Your task to perform on an android device: toggle location history Image 0: 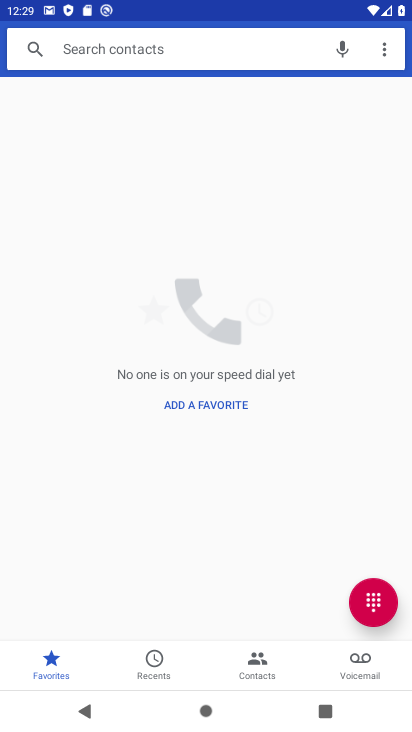
Step 0: click (206, 706)
Your task to perform on an android device: toggle location history Image 1: 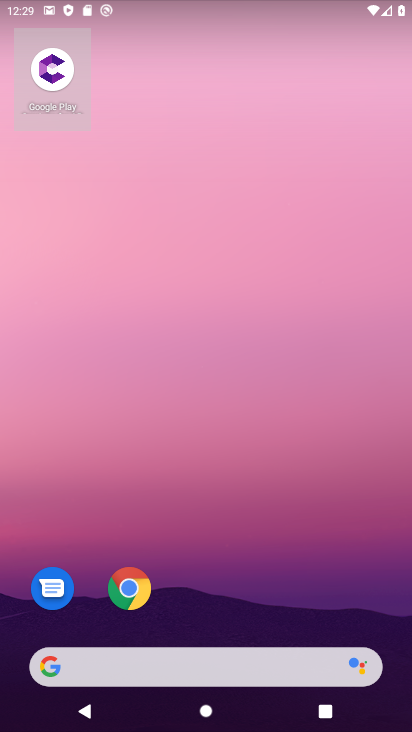
Step 1: drag from (259, 449) to (237, 213)
Your task to perform on an android device: toggle location history Image 2: 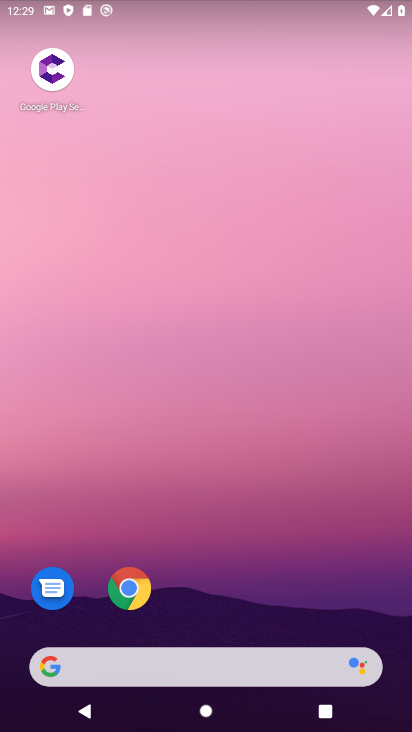
Step 2: drag from (245, 449) to (238, 152)
Your task to perform on an android device: toggle location history Image 3: 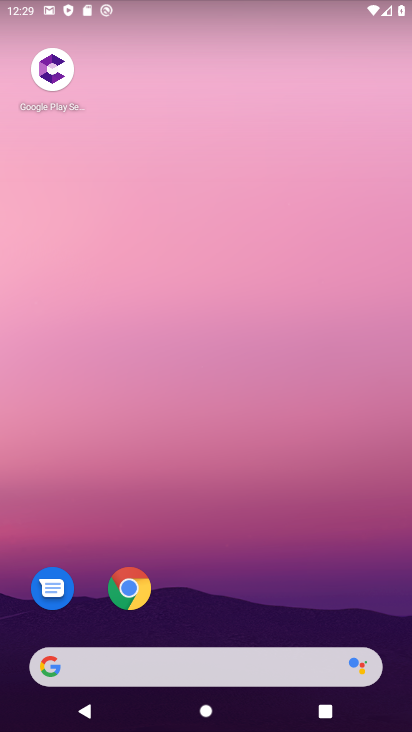
Step 3: drag from (232, 480) to (263, 56)
Your task to perform on an android device: toggle location history Image 4: 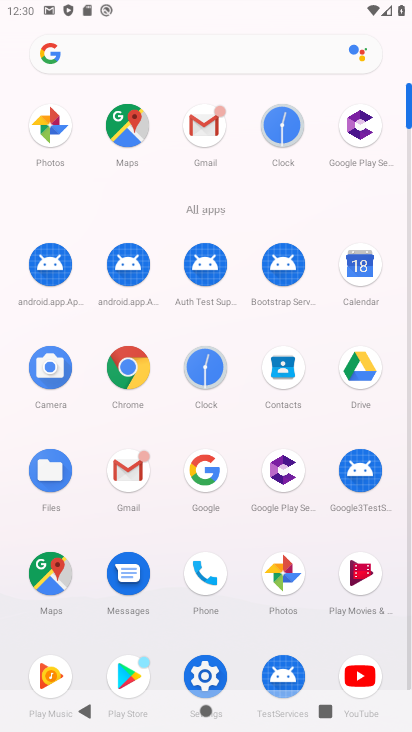
Step 4: click (213, 668)
Your task to perform on an android device: toggle location history Image 5: 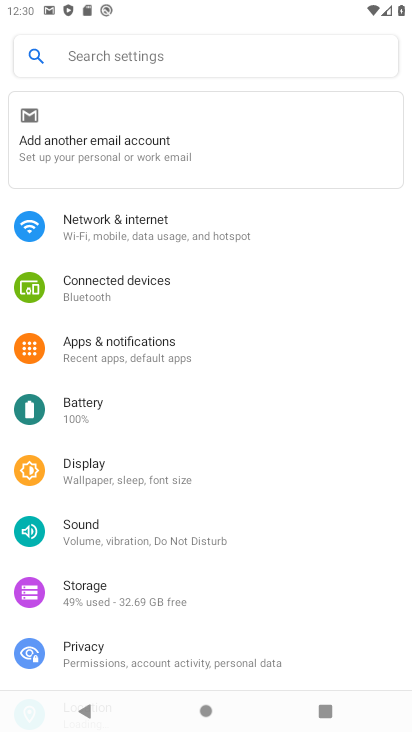
Step 5: drag from (96, 574) to (161, 373)
Your task to perform on an android device: toggle location history Image 6: 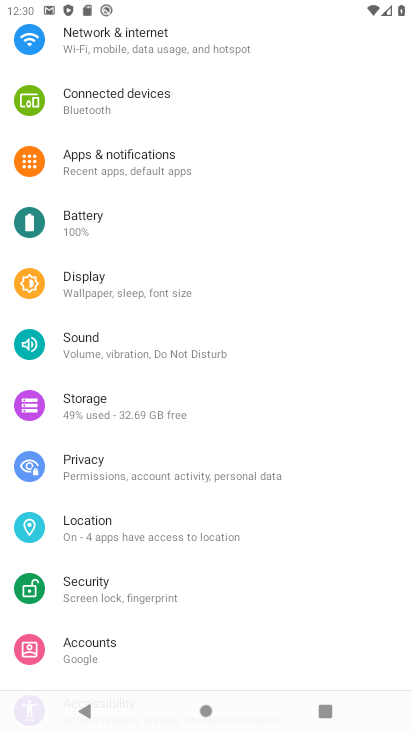
Step 6: click (96, 534)
Your task to perform on an android device: toggle location history Image 7: 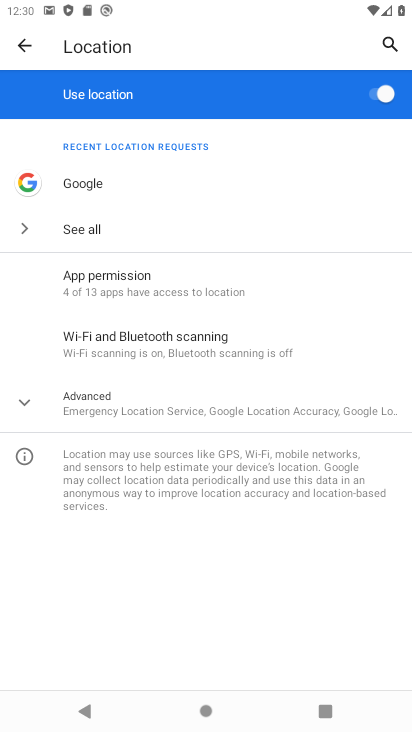
Step 7: click (379, 92)
Your task to perform on an android device: toggle location history Image 8: 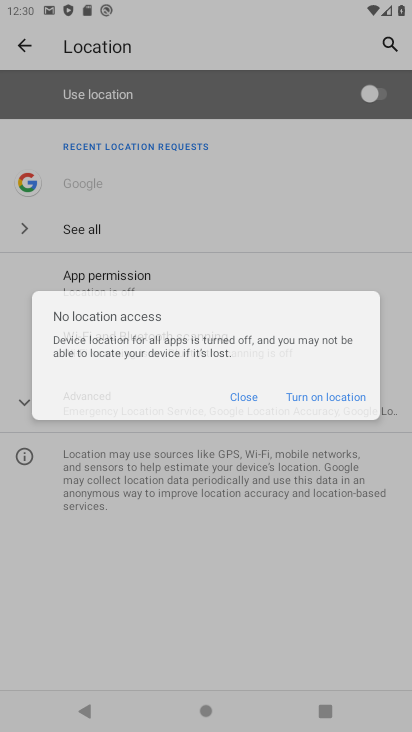
Step 8: task complete